Your task to perform on an android device: What's the weather going to be tomorrow? Image 0: 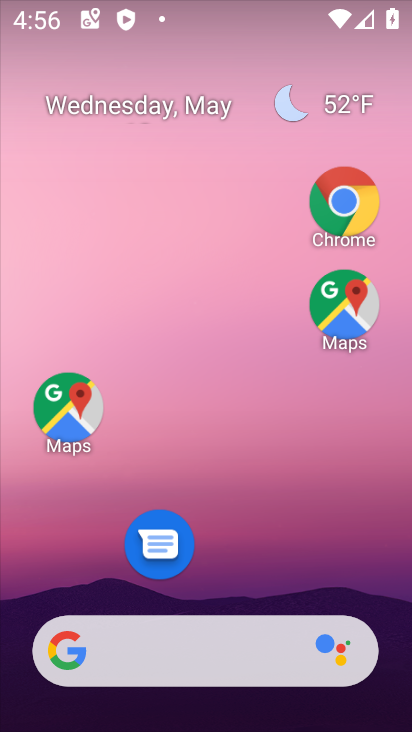
Step 0: click (258, 176)
Your task to perform on an android device: What's the weather going to be tomorrow? Image 1: 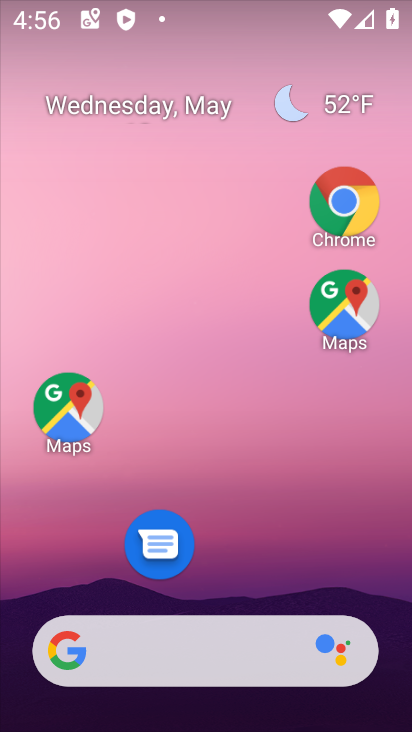
Step 1: drag from (200, 590) to (248, 166)
Your task to perform on an android device: What's the weather going to be tomorrow? Image 2: 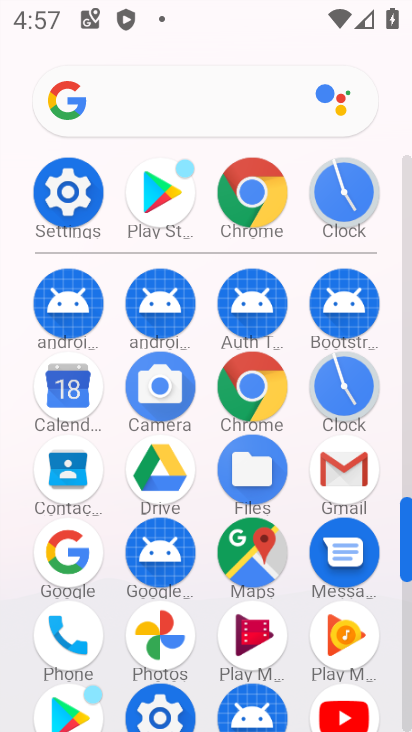
Step 2: click (74, 592)
Your task to perform on an android device: What's the weather going to be tomorrow? Image 3: 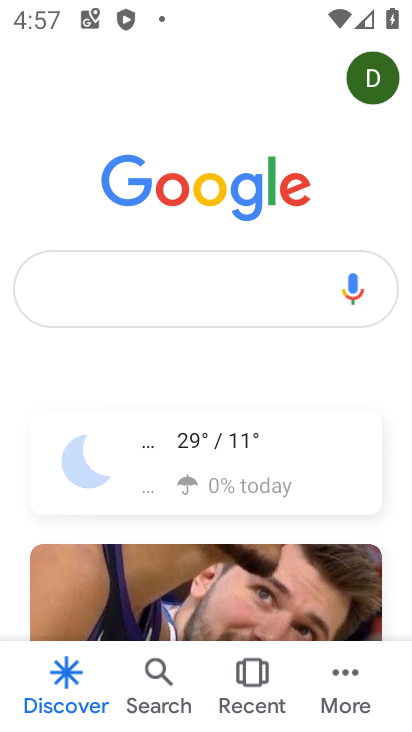
Step 3: click (195, 313)
Your task to perform on an android device: What's the weather going to be tomorrow? Image 4: 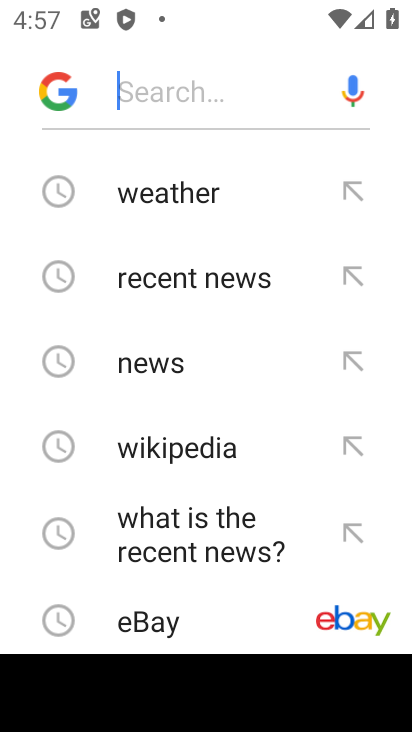
Step 4: click (168, 200)
Your task to perform on an android device: What's the weather going to be tomorrow? Image 5: 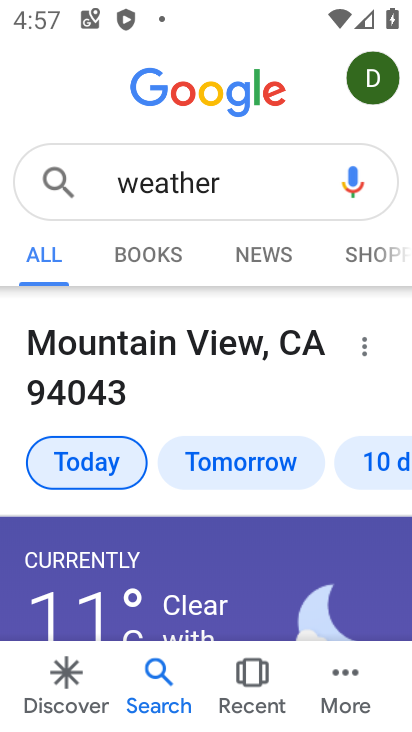
Step 5: click (253, 478)
Your task to perform on an android device: What's the weather going to be tomorrow? Image 6: 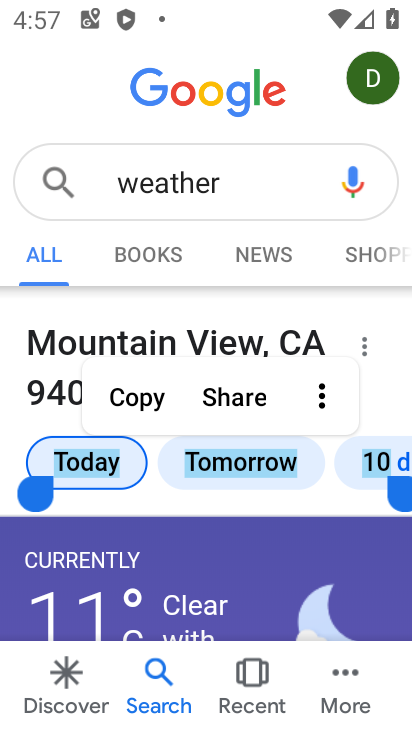
Step 6: click (240, 463)
Your task to perform on an android device: What's the weather going to be tomorrow? Image 7: 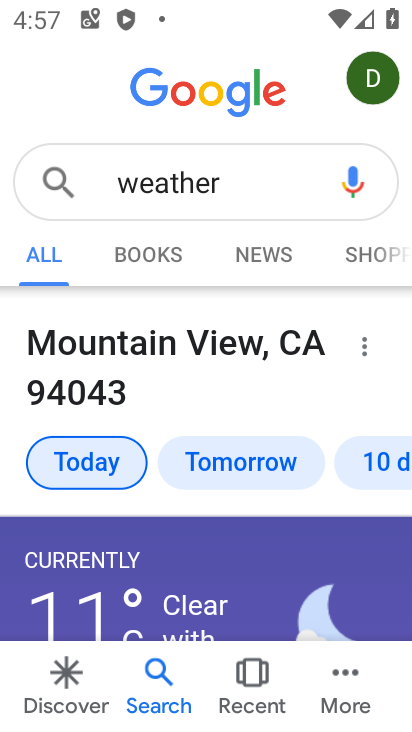
Step 7: drag from (230, 589) to (263, 358)
Your task to perform on an android device: What's the weather going to be tomorrow? Image 8: 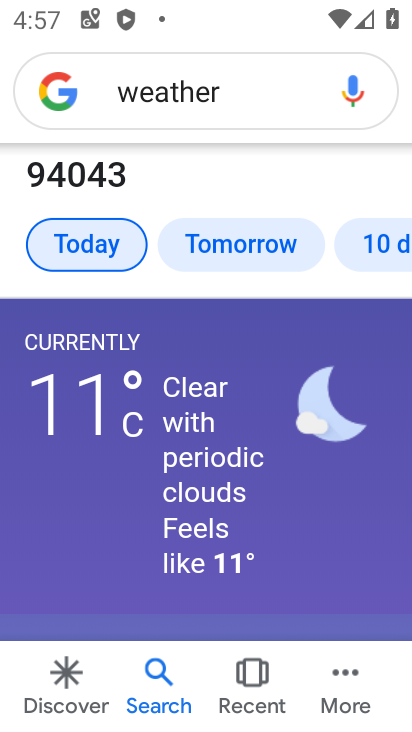
Step 8: drag from (205, 556) to (238, 314)
Your task to perform on an android device: What's the weather going to be tomorrow? Image 9: 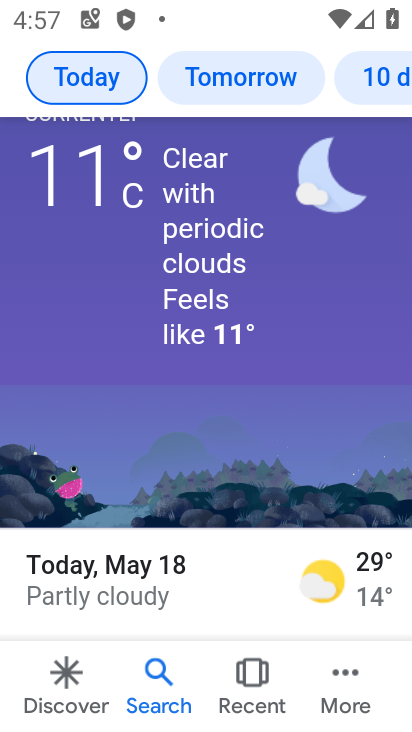
Step 9: drag from (202, 547) to (248, 327)
Your task to perform on an android device: What's the weather going to be tomorrow? Image 10: 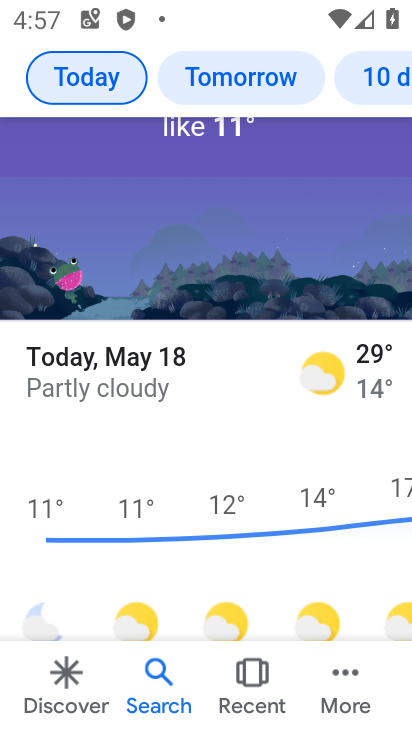
Step 10: click (232, 347)
Your task to perform on an android device: What's the weather going to be tomorrow? Image 11: 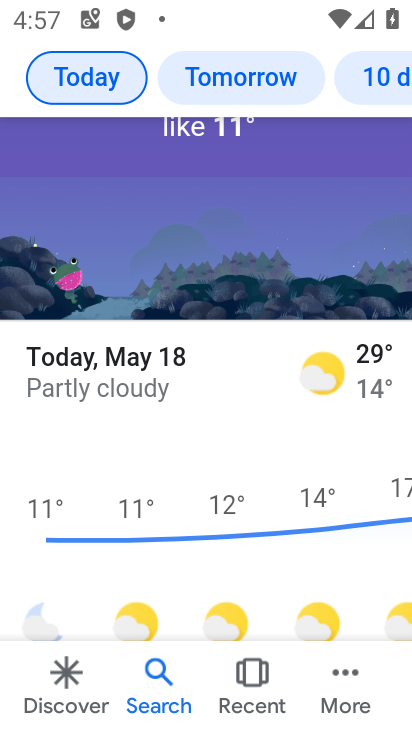
Step 11: task complete